Your task to perform on an android device: Open the map Image 0: 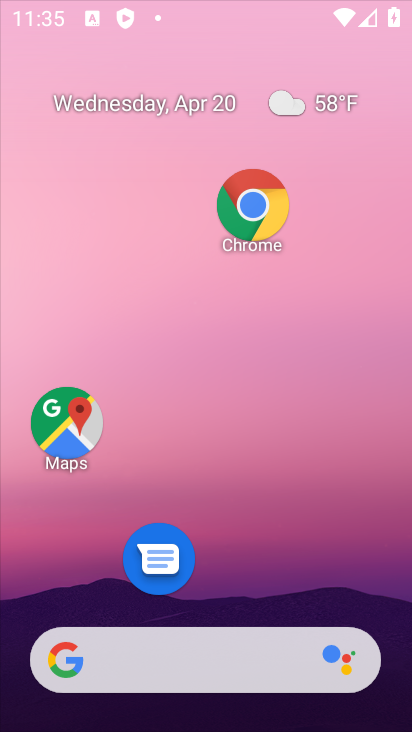
Step 0: drag from (262, 563) to (272, 0)
Your task to perform on an android device: Open the map Image 1: 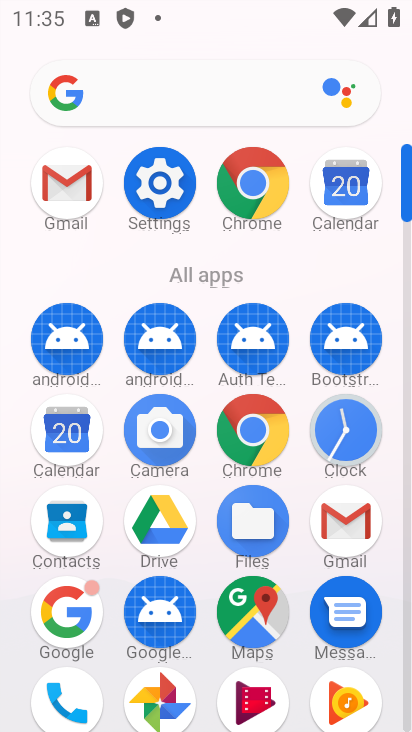
Step 1: drag from (191, 530) to (197, 43)
Your task to perform on an android device: Open the map Image 2: 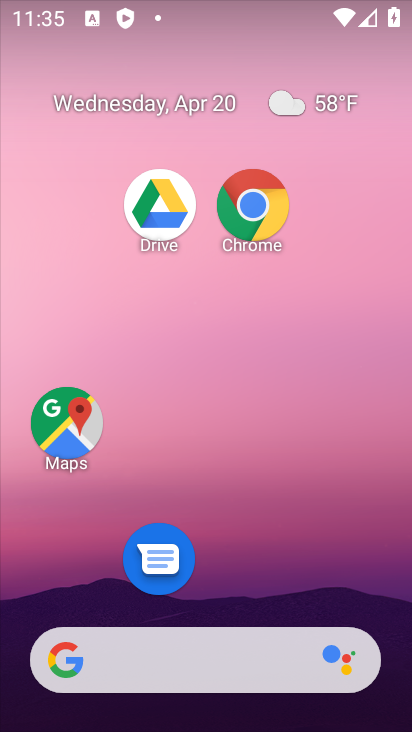
Step 2: drag from (273, 570) to (294, 9)
Your task to perform on an android device: Open the map Image 3: 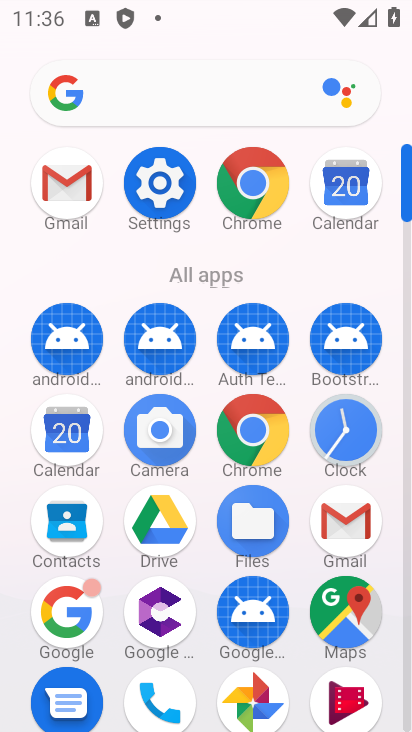
Step 3: click (334, 603)
Your task to perform on an android device: Open the map Image 4: 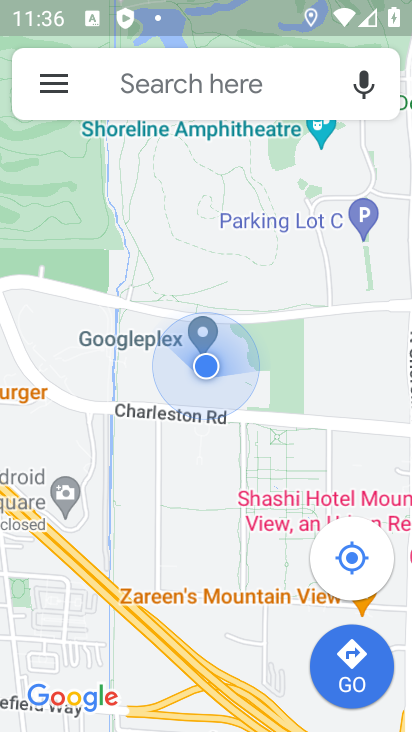
Step 4: task complete